Your task to perform on an android device: find photos in the google photos app Image 0: 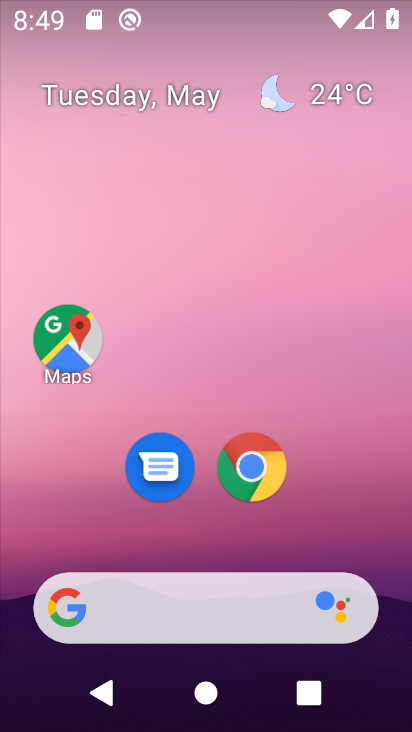
Step 0: drag from (385, 688) to (354, 184)
Your task to perform on an android device: find photos in the google photos app Image 1: 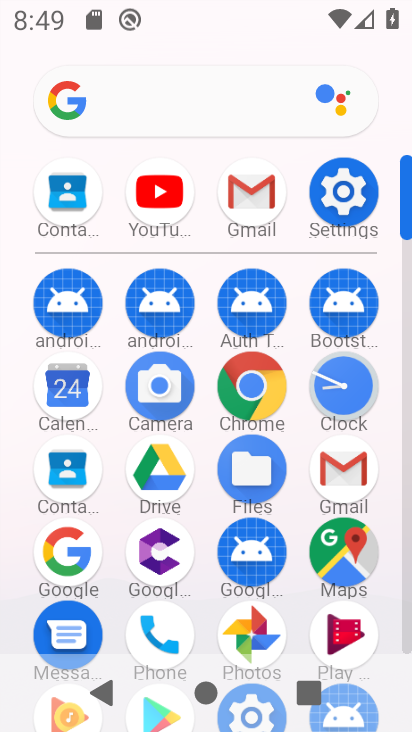
Step 1: click (255, 622)
Your task to perform on an android device: find photos in the google photos app Image 2: 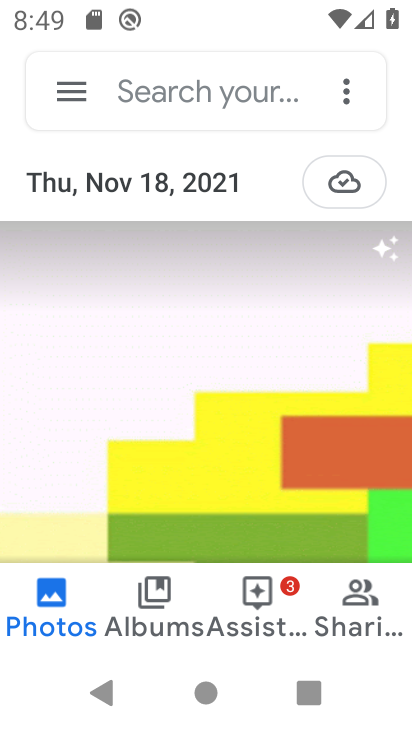
Step 2: click (57, 612)
Your task to perform on an android device: find photos in the google photos app Image 3: 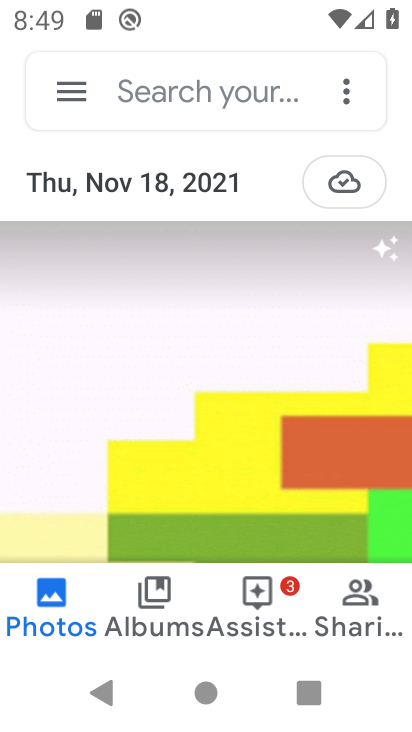
Step 3: task complete